Your task to perform on an android device: turn on the 12-hour format for clock Image 0: 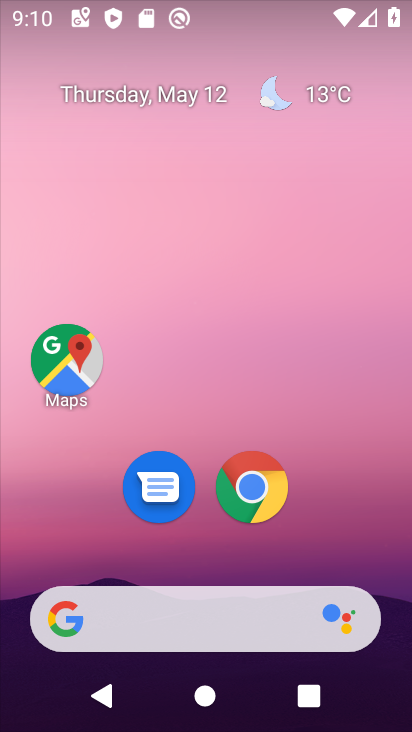
Step 0: drag from (196, 570) to (258, 24)
Your task to perform on an android device: turn on the 12-hour format for clock Image 1: 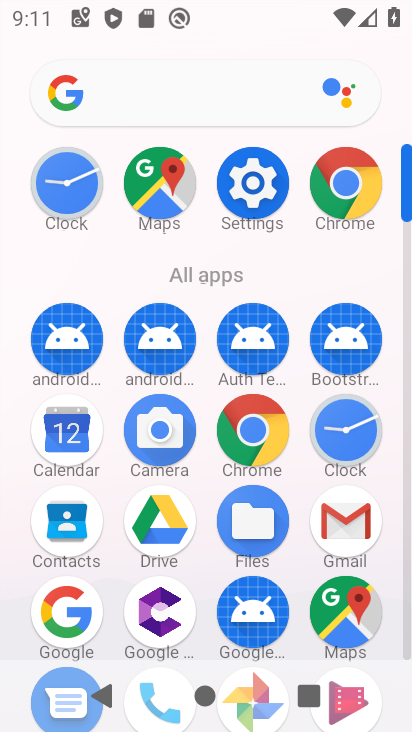
Step 1: click (341, 413)
Your task to perform on an android device: turn on the 12-hour format for clock Image 2: 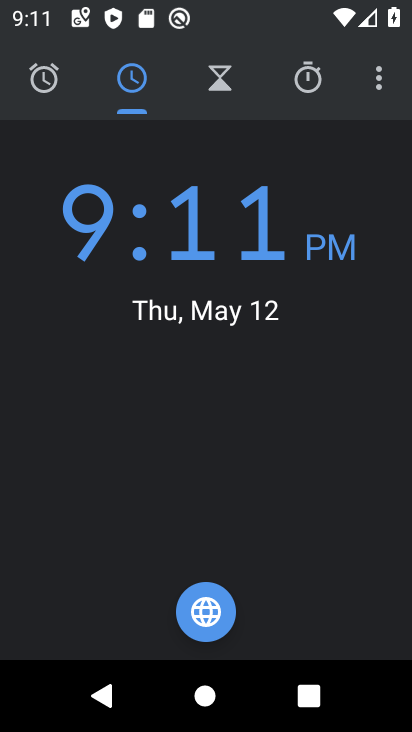
Step 2: click (351, 23)
Your task to perform on an android device: turn on the 12-hour format for clock Image 3: 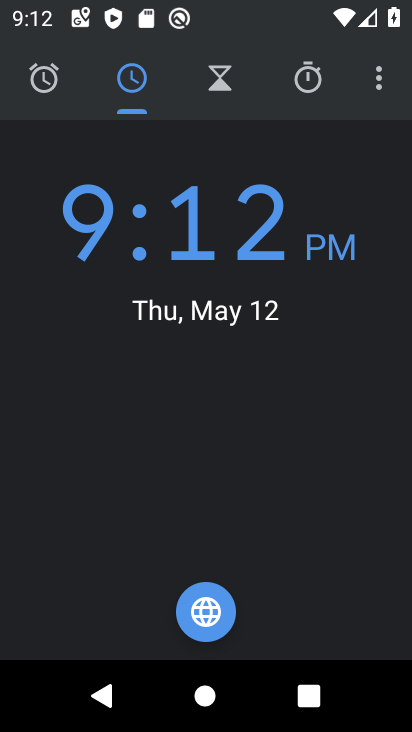
Step 3: task complete